Your task to perform on an android device: Search for logitech g502 on costco, select the first entry, and add it to the cart. Image 0: 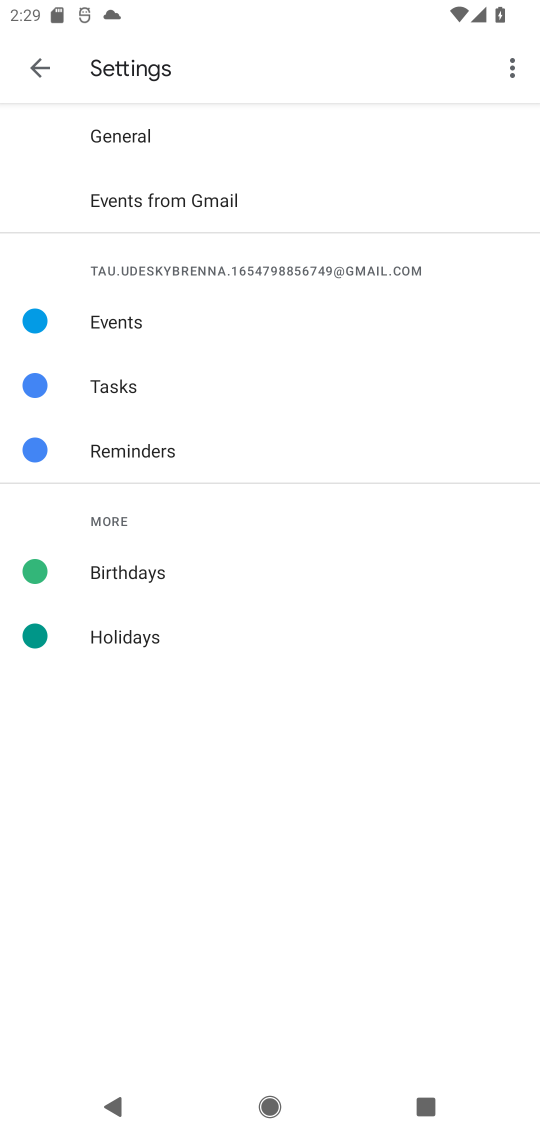
Step 0: press home button
Your task to perform on an android device: Search for logitech g502 on costco, select the first entry, and add it to the cart. Image 1: 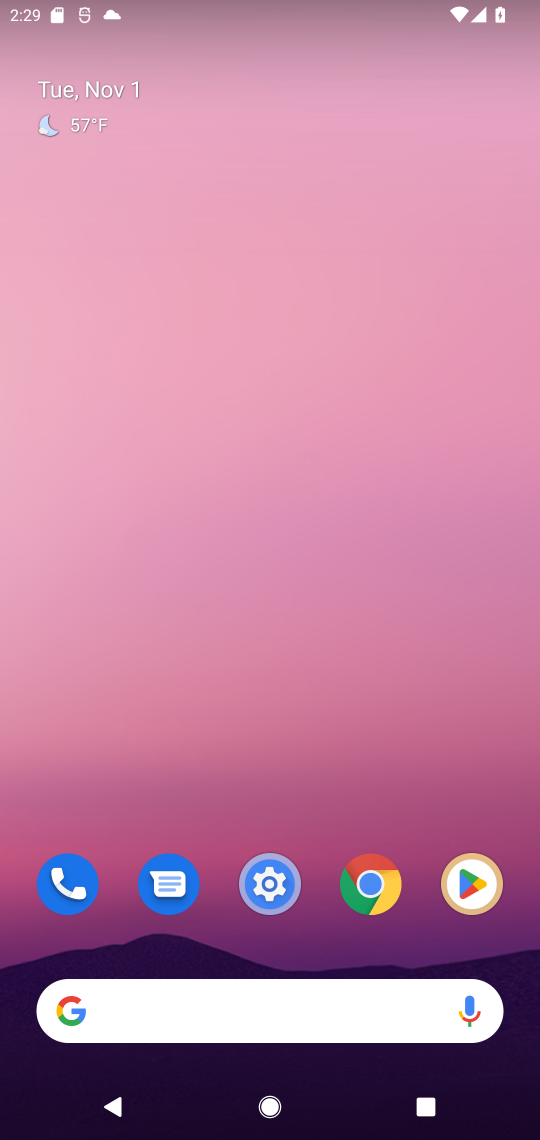
Step 1: click (93, 1012)
Your task to perform on an android device: Search for logitech g502 on costco, select the first entry, and add it to the cart. Image 2: 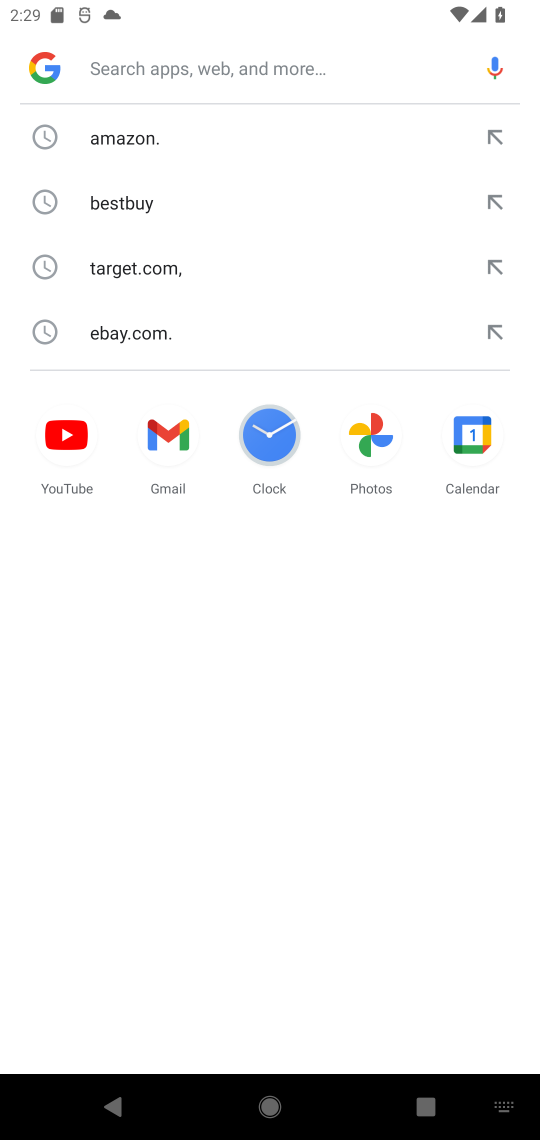
Step 2: type "costco"
Your task to perform on an android device: Search for logitech g502 on costco, select the first entry, and add it to the cart. Image 3: 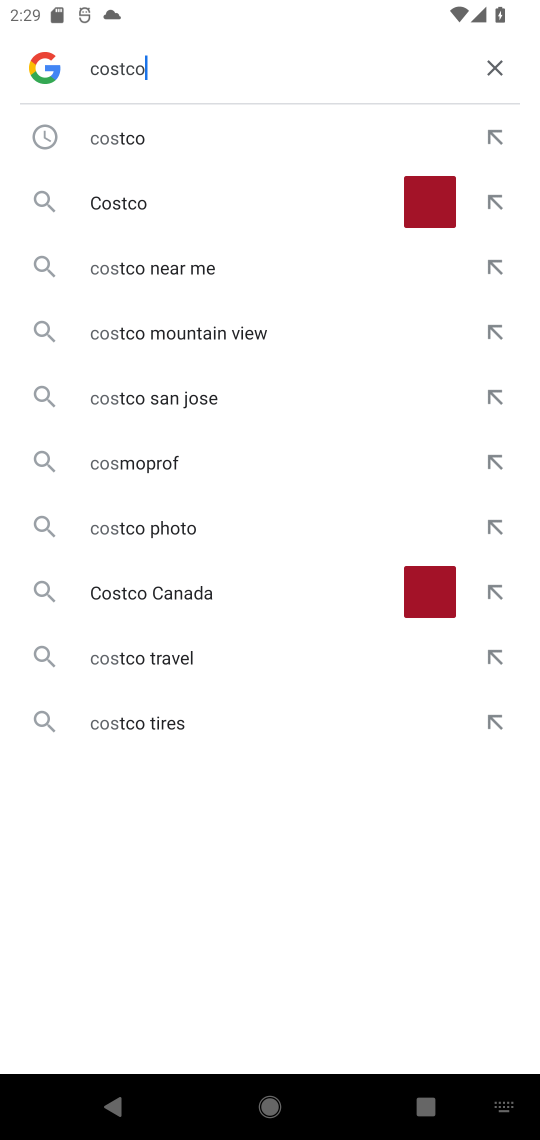
Step 3: press enter
Your task to perform on an android device: Search for logitech g502 on costco, select the first entry, and add it to the cart. Image 4: 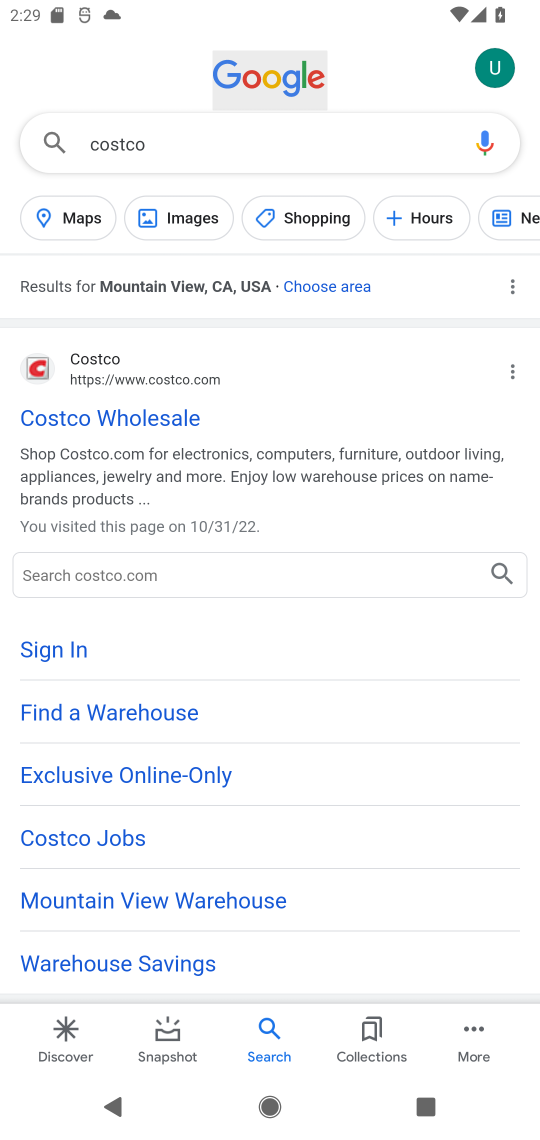
Step 4: click (116, 420)
Your task to perform on an android device: Search for logitech g502 on costco, select the first entry, and add it to the cart. Image 5: 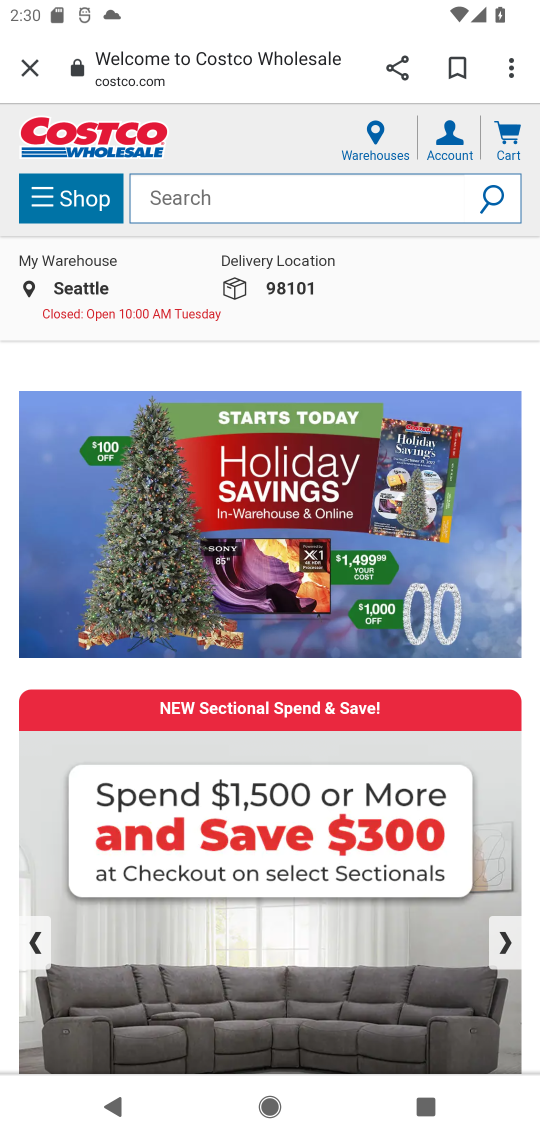
Step 5: click (180, 199)
Your task to perform on an android device: Search for logitech g502 on costco, select the first entry, and add it to the cart. Image 6: 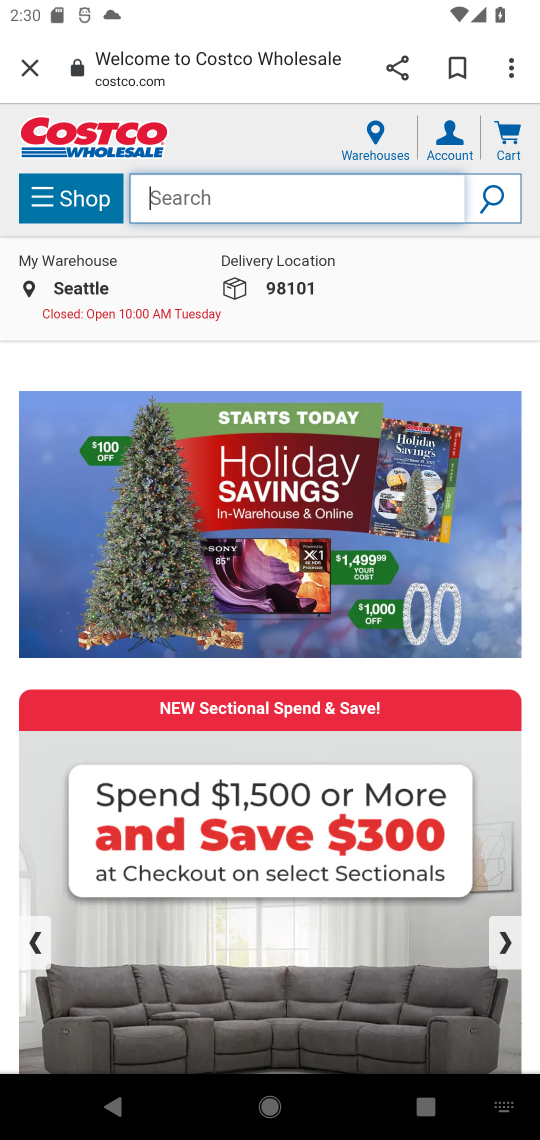
Step 6: press enter
Your task to perform on an android device: Search for logitech g502 on costco, select the first entry, and add it to the cart. Image 7: 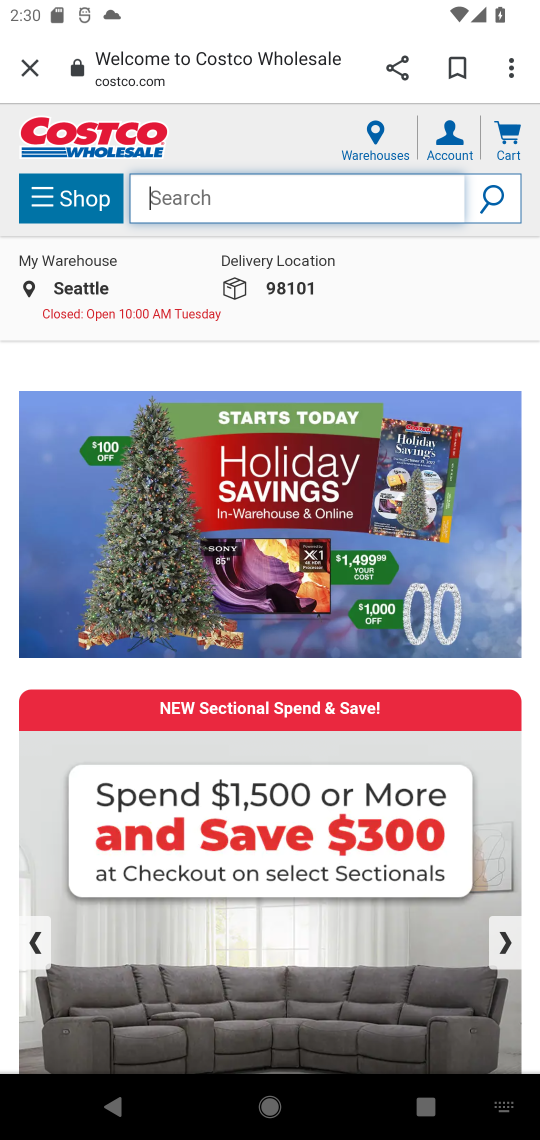
Step 7: type "logitech g502 "
Your task to perform on an android device: Search for logitech g502 on costco, select the first entry, and add it to the cart. Image 8: 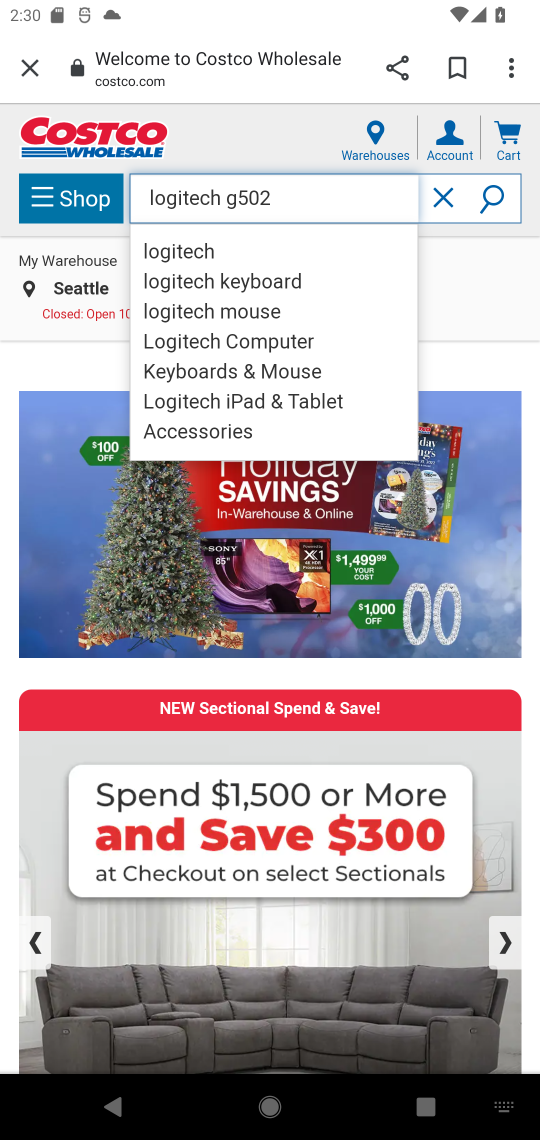
Step 8: click (491, 198)
Your task to perform on an android device: Search for logitech g502 on costco, select the first entry, and add it to the cart. Image 9: 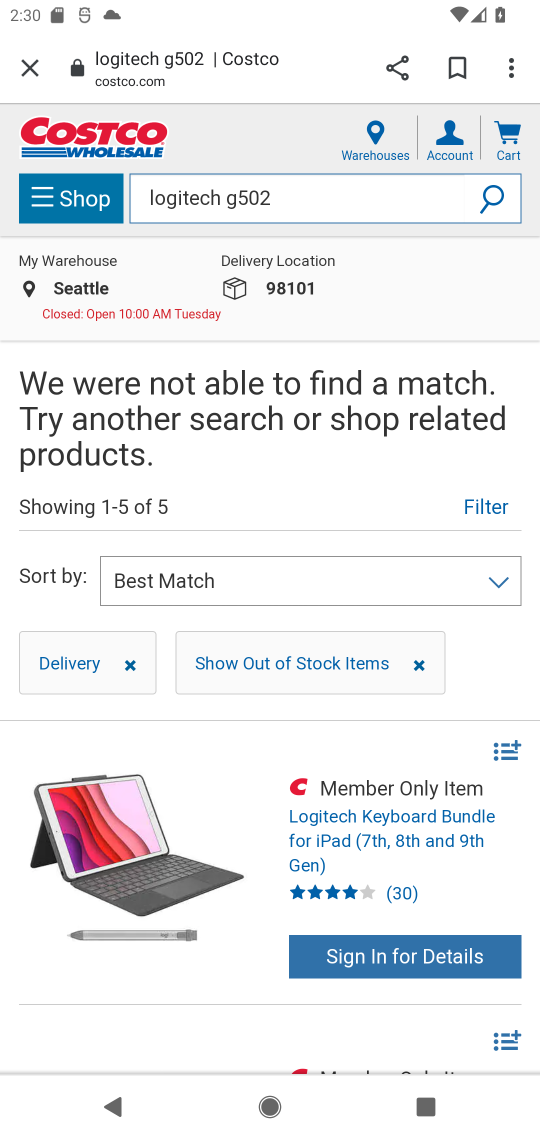
Step 9: task complete